Your task to perform on an android device: Open privacy settings Image 0: 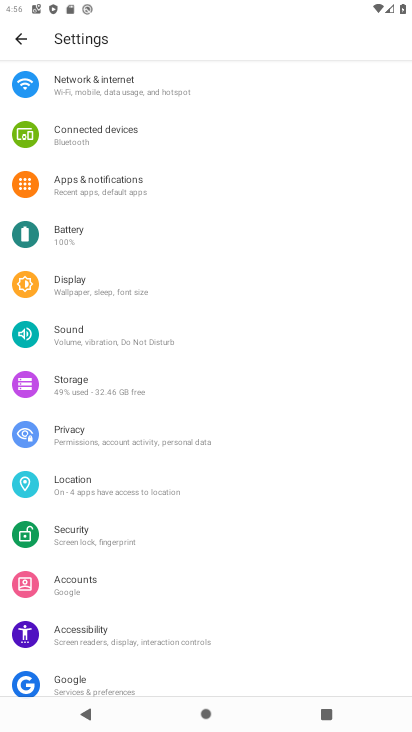
Step 0: click (94, 443)
Your task to perform on an android device: Open privacy settings Image 1: 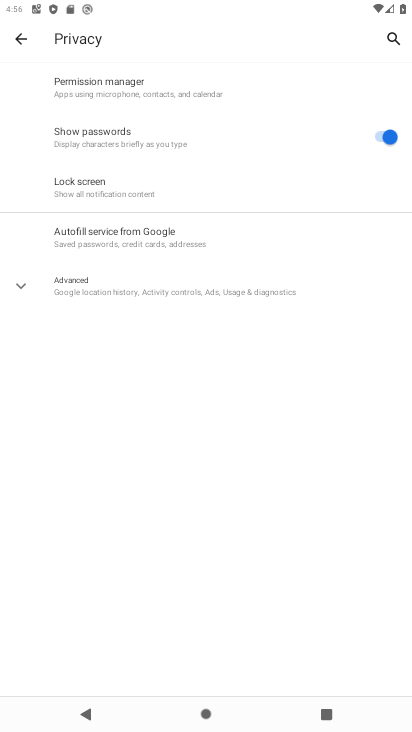
Step 1: task complete